Your task to perform on an android device: check data usage Image 0: 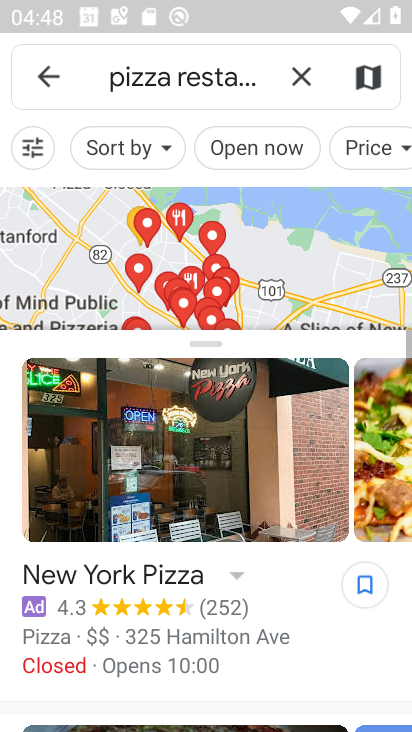
Step 0: press home button
Your task to perform on an android device: check data usage Image 1: 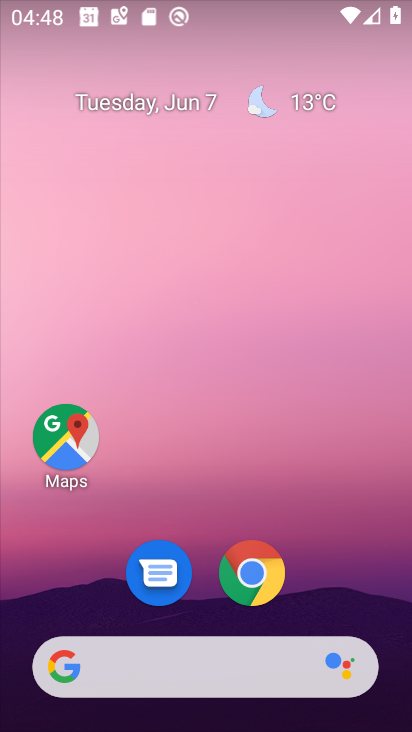
Step 1: drag from (345, 586) to (354, 100)
Your task to perform on an android device: check data usage Image 2: 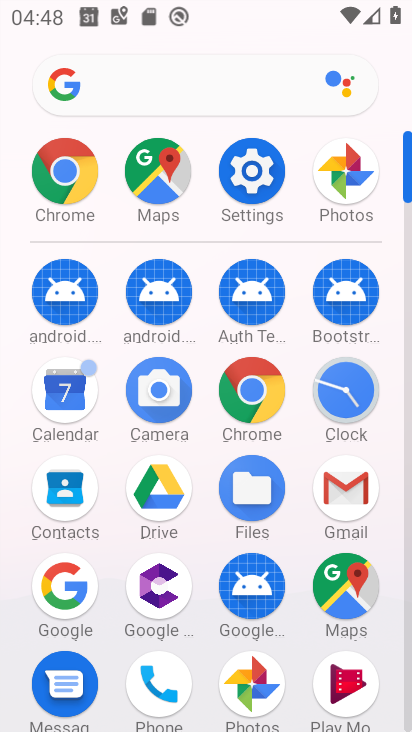
Step 2: drag from (311, 8) to (239, 483)
Your task to perform on an android device: check data usage Image 3: 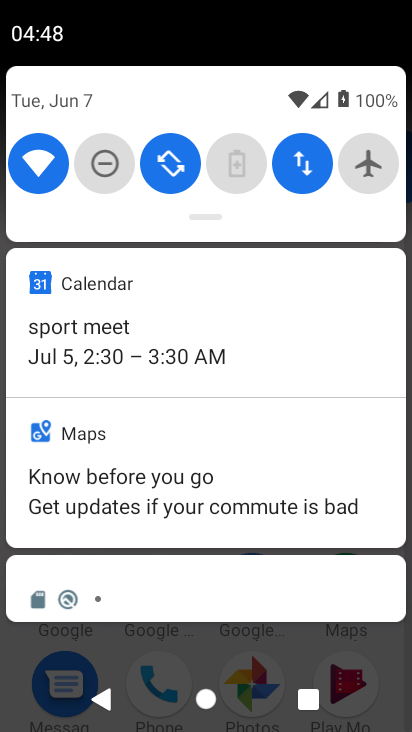
Step 3: click (296, 163)
Your task to perform on an android device: check data usage Image 4: 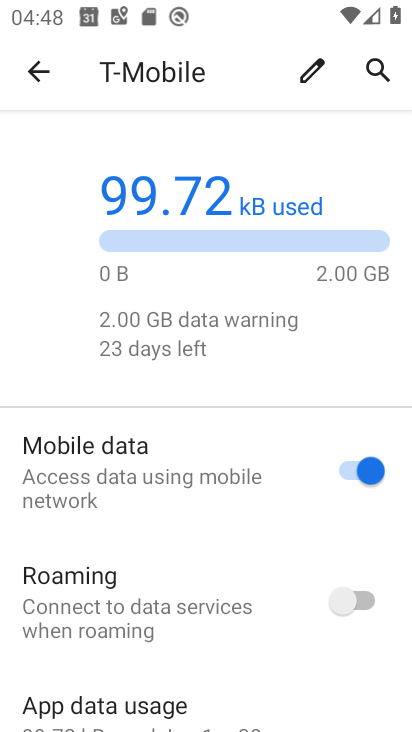
Step 4: task complete